Your task to perform on an android device: Is it going to rain tomorrow? Image 0: 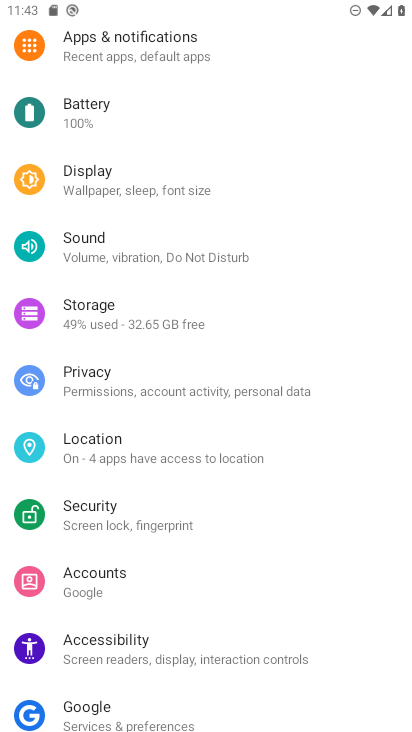
Step 0: press home button
Your task to perform on an android device: Is it going to rain tomorrow? Image 1: 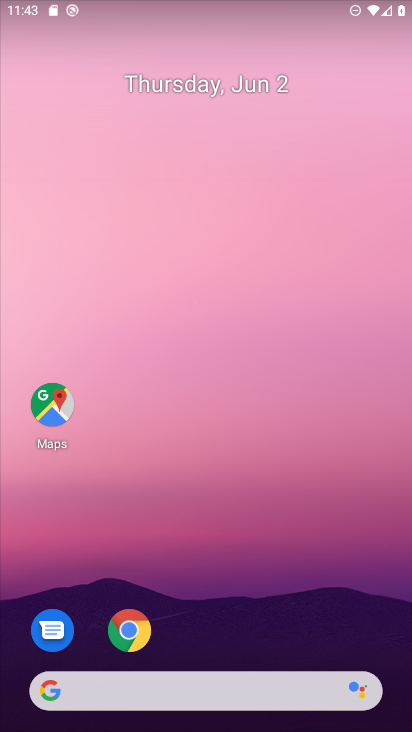
Step 1: click (241, 694)
Your task to perform on an android device: Is it going to rain tomorrow? Image 2: 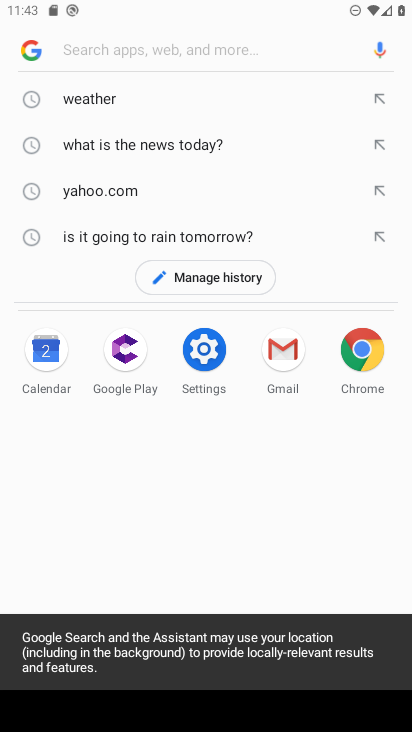
Step 2: click (146, 238)
Your task to perform on an android device: Is it going to rain tomorrow? Image 3: 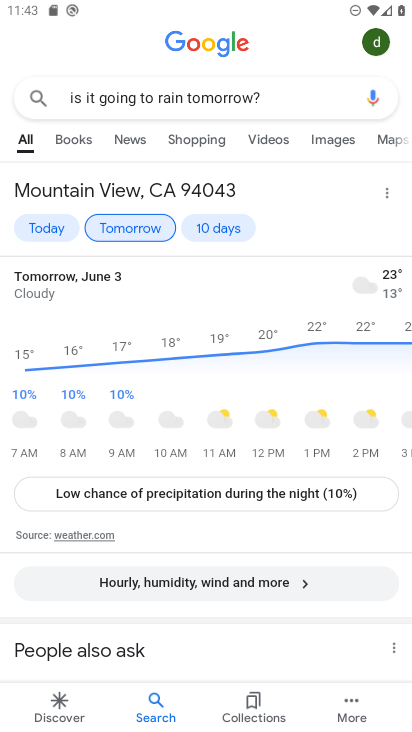
Step 3: task complete